Your task to perform on an android device: turn on airplane mode Image 0: 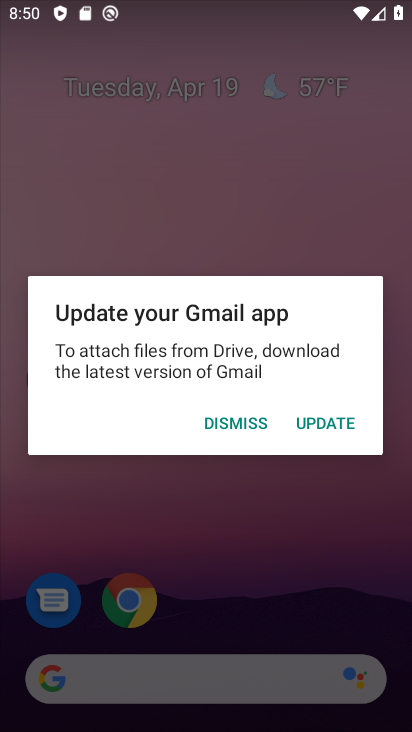
Step 0: press home button
Your task to perform on an android device: turn on airplane mode Image 1: 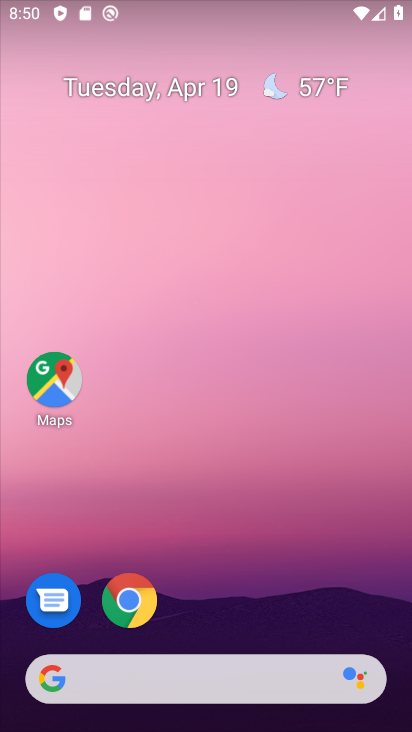
Step 1: drag from (359, 577) to (390, 176)
Your task to perform on an android device: turn on airplane mode Image 2: 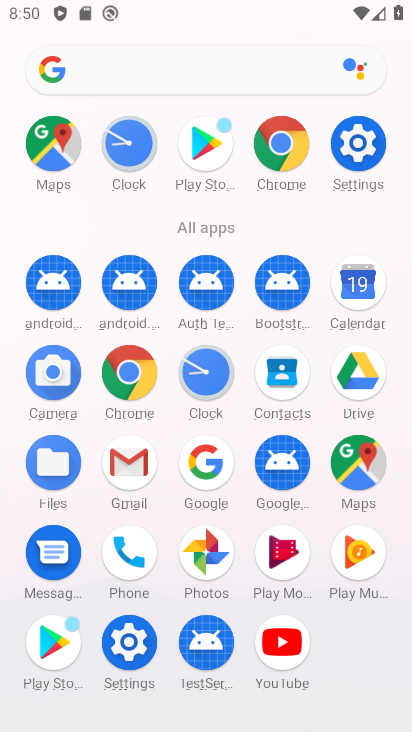
Step 2: click (357, 148)
Your task to perform on an android device: turn on airplane mode Image 3: 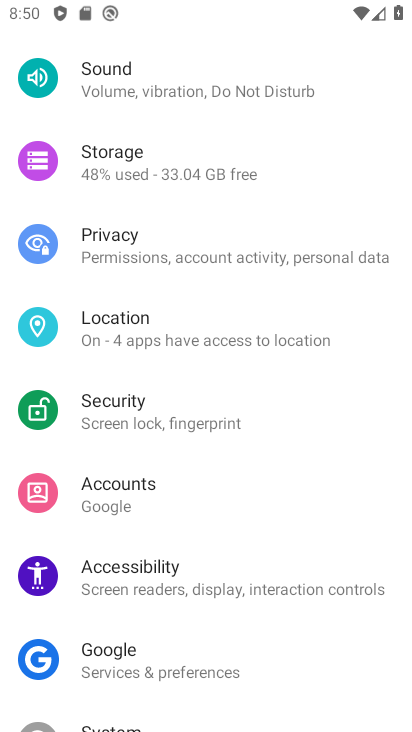
Step 3: drag from (373, 389) to (386, 497)
Your task to perform on an android device: turn on airplane mode Image 4: 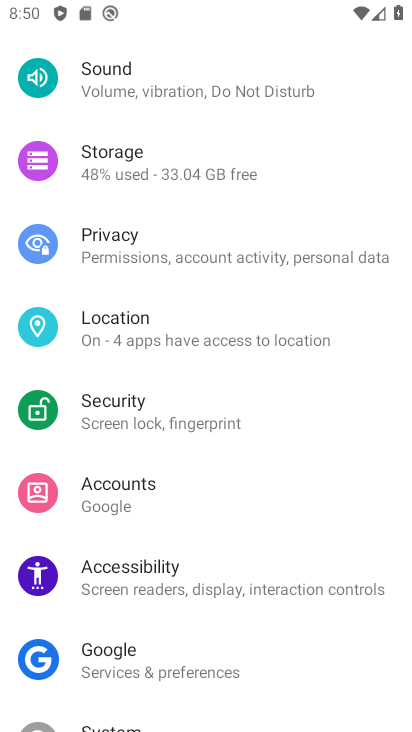
Step 4: drag from (380, 334) to (383, 545)
Your task to perform on an android device: turn on airplane mode Image 5: 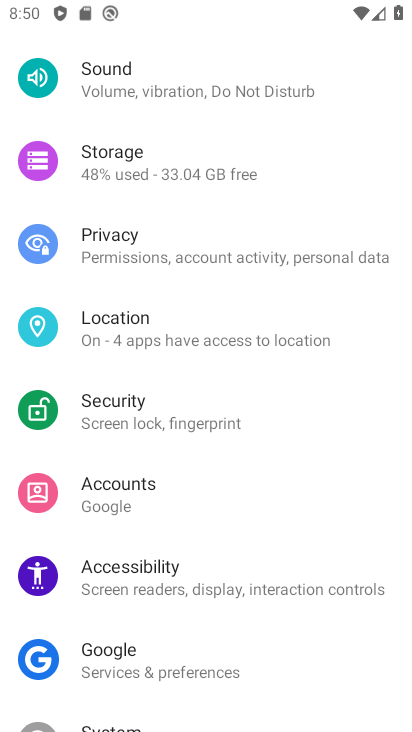
Step 5: drag from (383, 178) to (376, 450)
Your task to perform on an android device: turn on airplane mode Image 6: 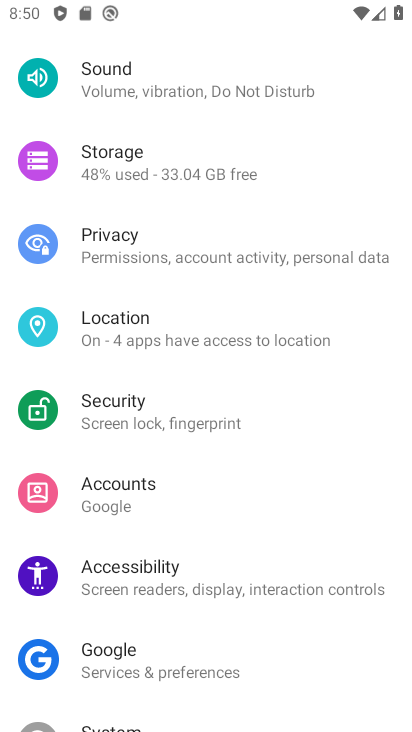
Step 6: drag from (376, 169) to (378, 524)
Your task to perform on an android device: turn on airplane mode Image 7: 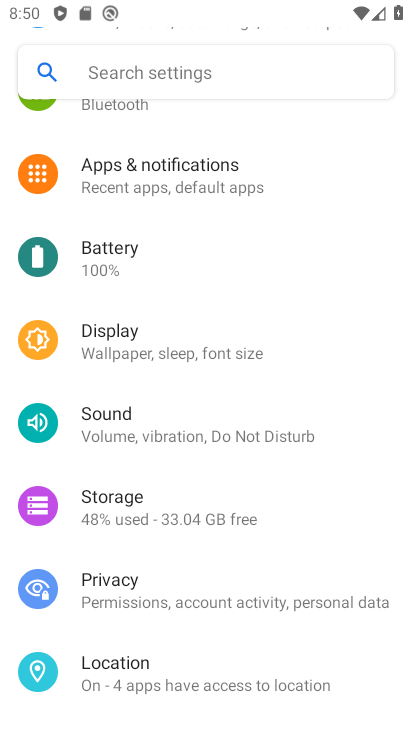
Step 7: drag from (368, 181) to (365, 414)
Your task to perform on an android device: turn on airplane mode Image 8: 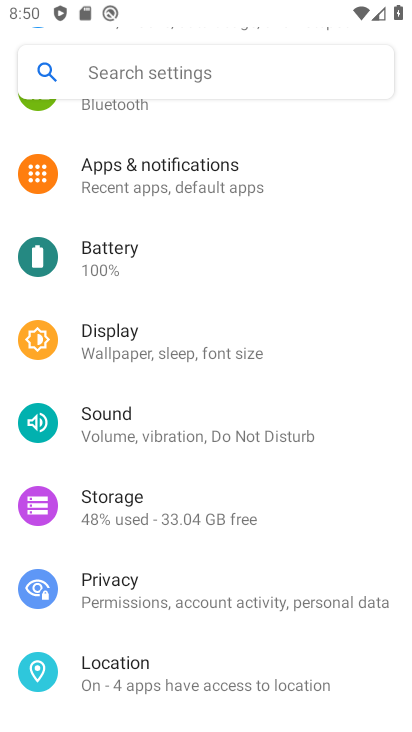
Step 8: drag from (344, 174) to (349, 452)
Your task to perform on an android device: turn on airplane mode Image 9: 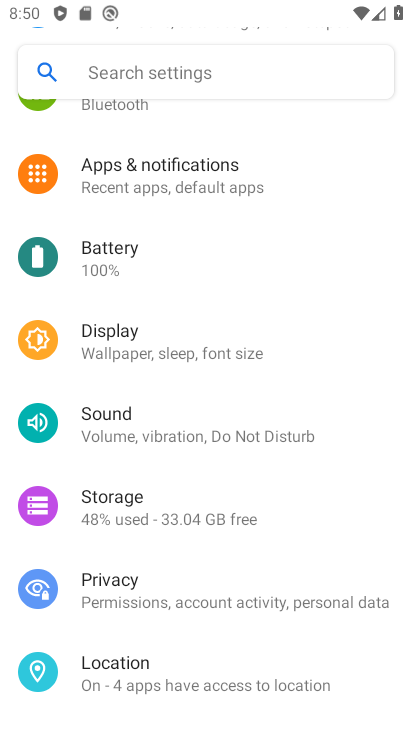
Step 9: drag from (363, 248) to (367, 536)
Your task to perform on an android device: turn on airplane mode Image 10: 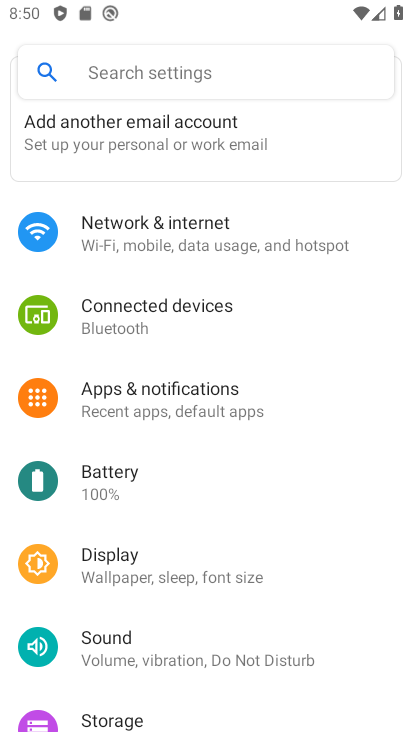
Step 10: click (230, 232)
Your task to perform on an android device: turn on airplane mode Image 11: 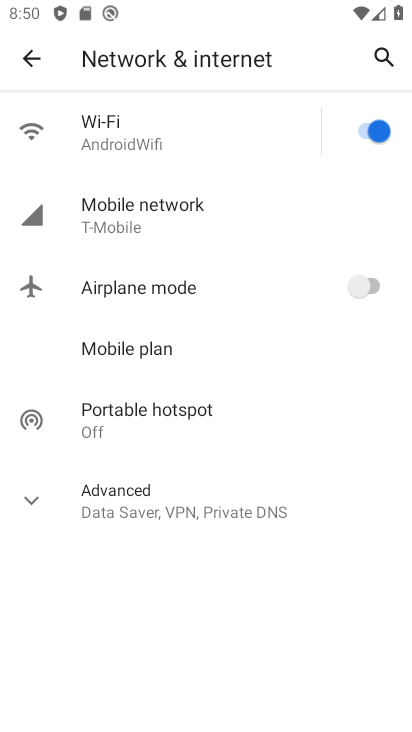
Step 11: click (364, 287)
Your task to perform on an android device: turn on airplane mode Image 12: 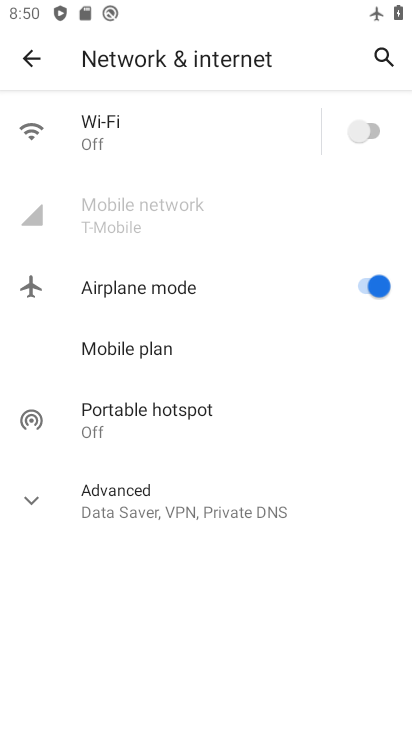
Step 12: task complete